Your task to perform on an android device: find snoozed emails in the gmail app Image 0: 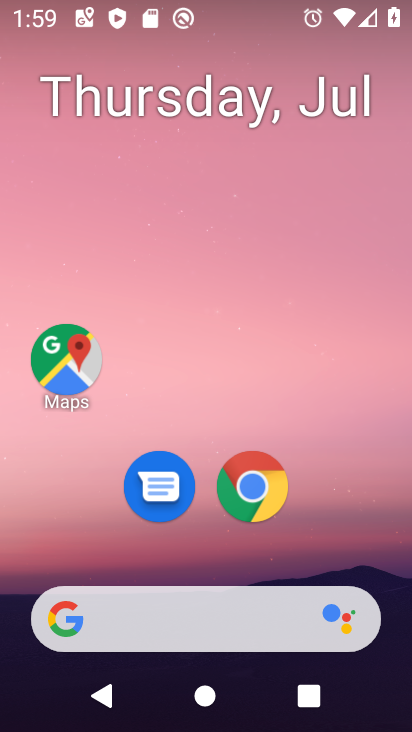
Step 0: drag from (196, 530) to (221, 8)
Your task to perform on an android device: find snoozed emails in the gmail app Image 1: 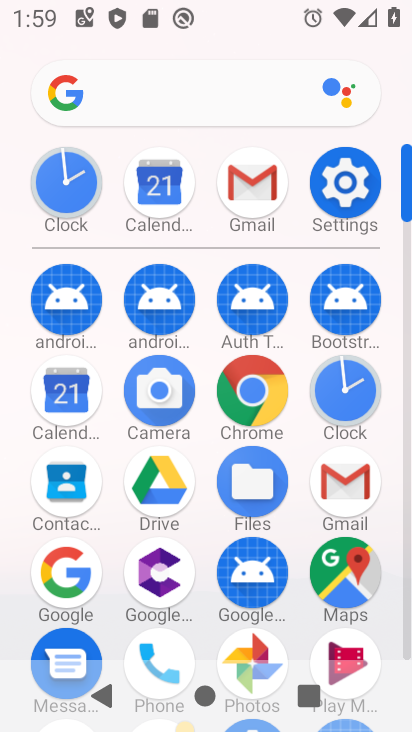
Step 1: click (348, 485)
Your task to perform on an android device: find snoozed emails in the gmail app Image 2: 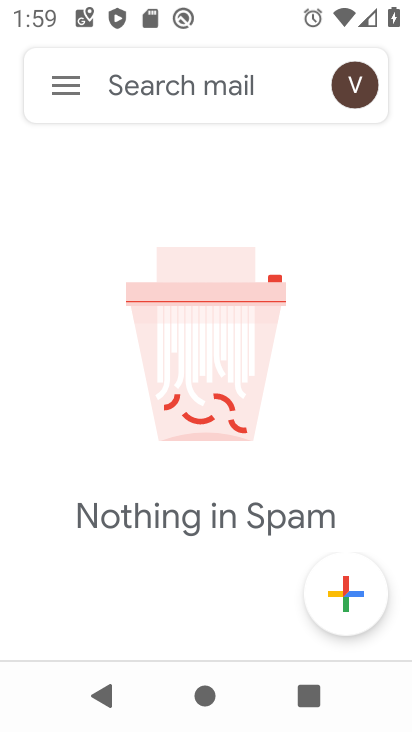
Step 2: click (55, 89)
Your task to perform on an android device: find snoozed emails in the gmail app Image 3: 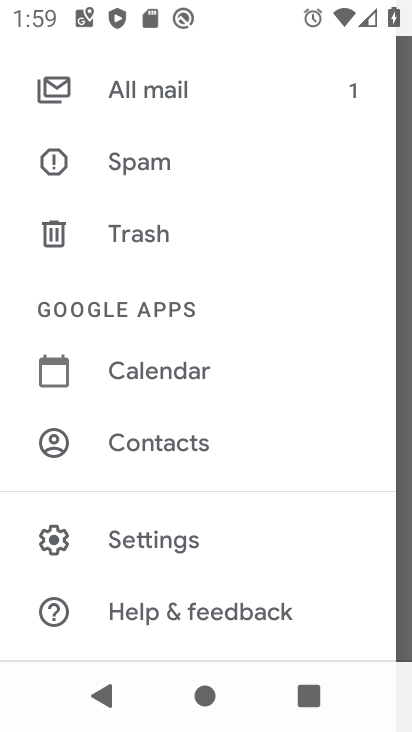
Step 3: drag from (156, 165) to (171, 656)
Your task to perform on an android device: find snoozed emails in the gmail app Image 4: 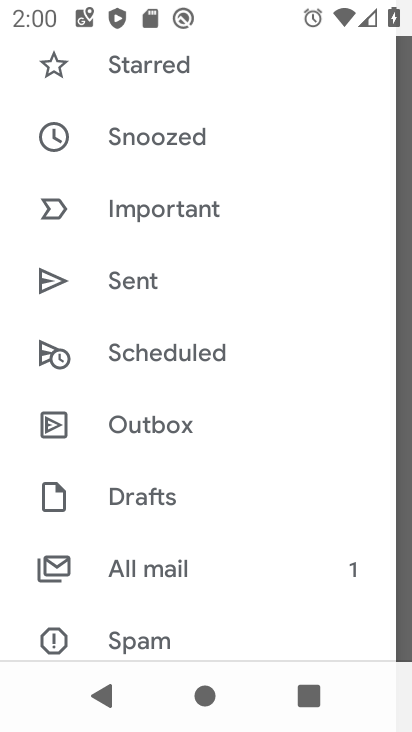
Step 4: click (117, 141)
Your task to perform on an android device: find snoozed emails in the gmail app Image 5: 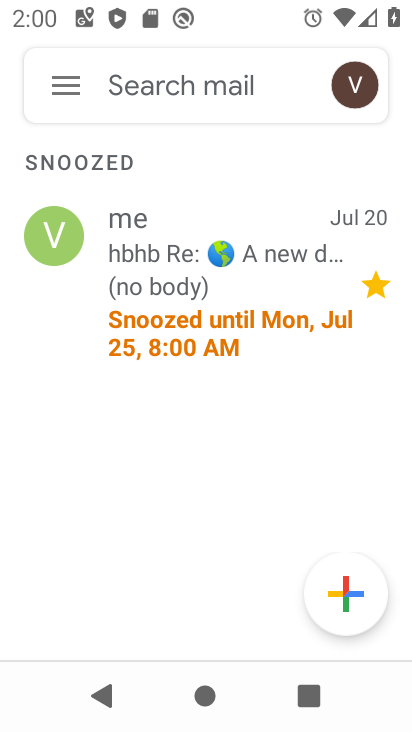
Step 5: task complete